Your task to perform on an android device: Open Youtube and go to "Your channel" Image 0: 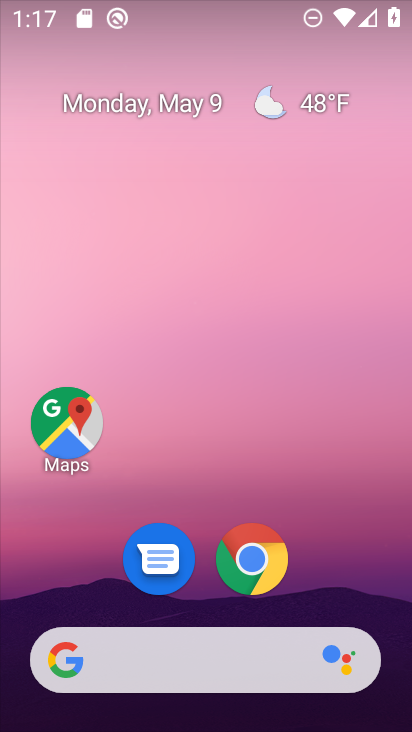
Step 0: click (255, 321)
Your task to perform on an android device: Open Youtube and go to "Your channel" Image 1: 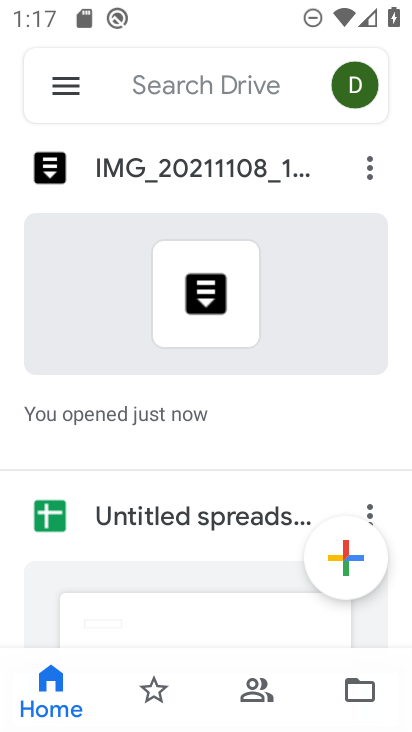
Step 1: drag from (254, 611) to (311, 232)
Your task to perform on an android device: Open Youtube and go to "Your channel" Image 2: 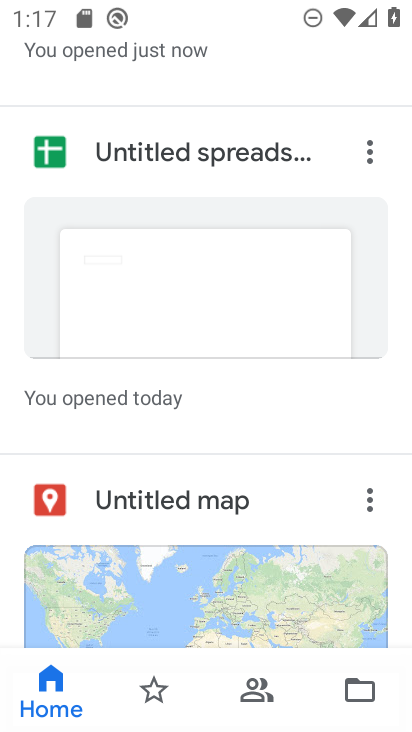
Step 2: drag from (192, 599) to (212, 303)
Your task to perform on an android device: Open Youtube and go to "Your channel" Image 3: 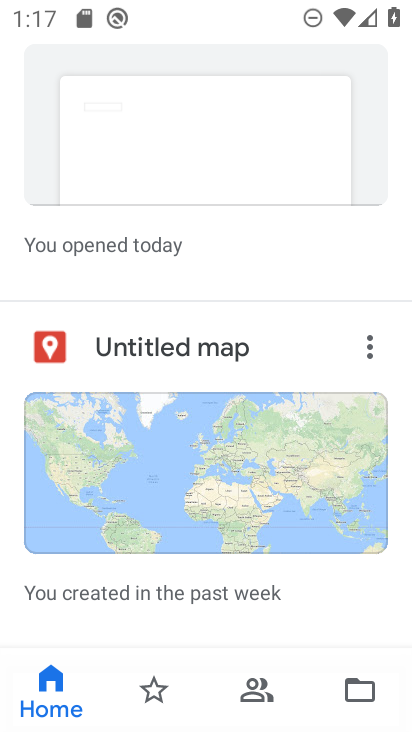
Step 3: drag from (255, 304) to (303, 696)
Your task to perform on an android device: Open Youtube and go to "Your channel" Image 4: 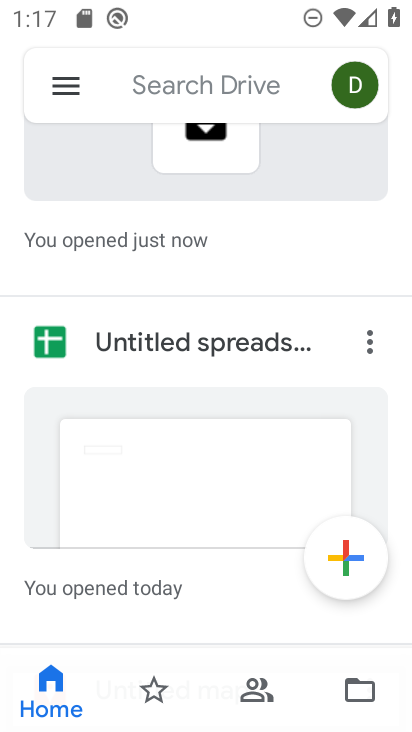
Step 4: press home button
Your task to perform on an android device: Open Youtube and go to "Your channel" Image 5: 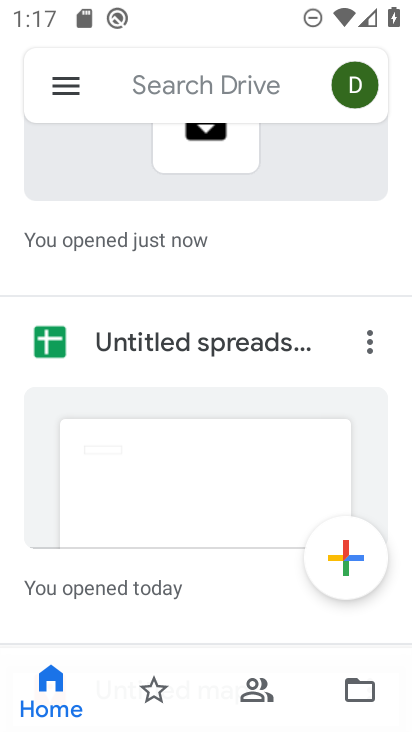
Step 5: press home button
Your task to perform on an android device: Open Youtube and go to "Your channel" Image 6: 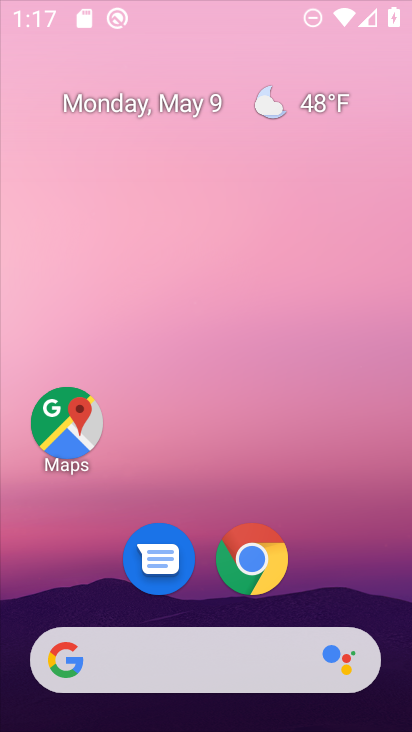
Step 6: press home button
Your task to perform on an android device: Open Youtube and go to "Your channel" Image 7: 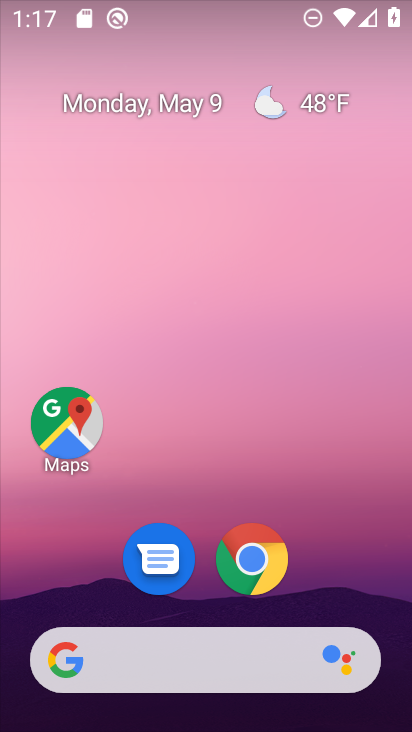
Step 7: drag from (212, 603) to (260, 251)
Your task to perform on an android device: Open Youtube and go to "Your channel" Image 8: 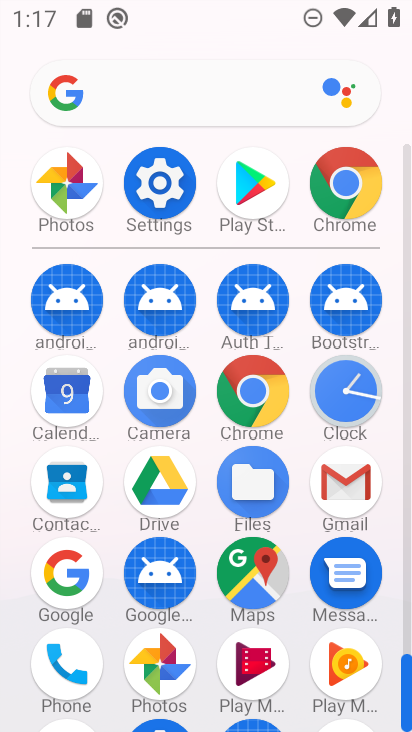
Step 8: drag from (203, 645) to (190, 260)
Your task to perform on an android device: Open Youtube and go to "Your channel" Image 9: 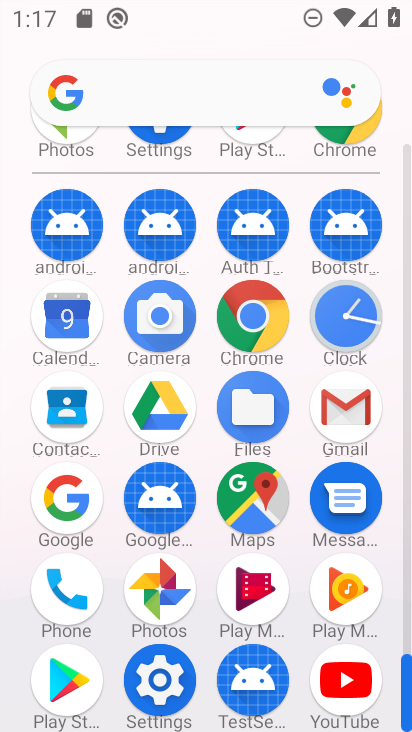
Step 9: click (363, 659)
Your task to perform on an android device: Open Youtube and go to "Your channel" Image 10: 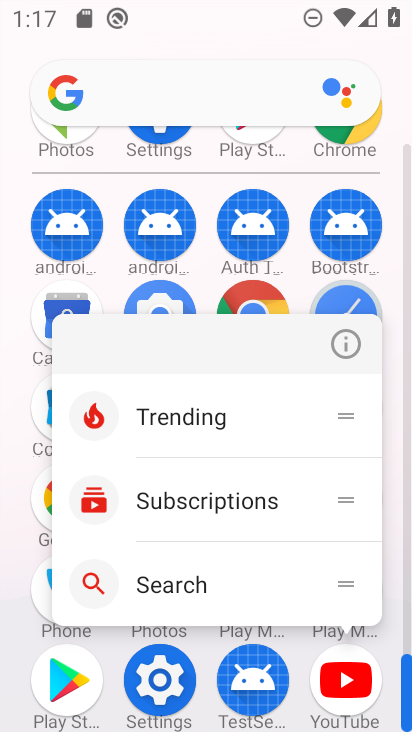
Step 10: click (345, 334)
Your task to perform on an android device: Open Youtube and go to "Your channel" Image 11: 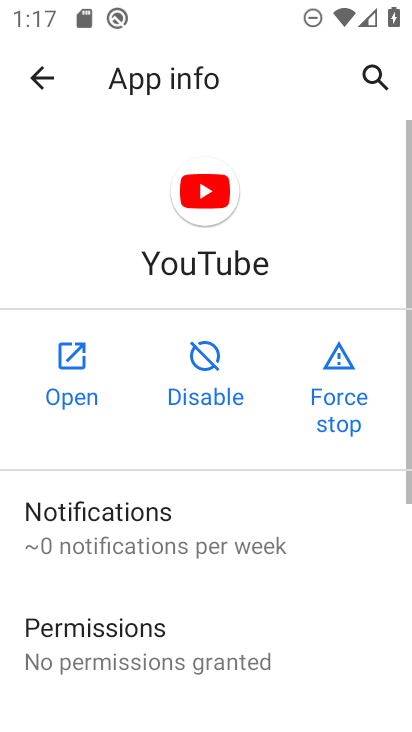
Step 11: click (73, 381)
Your task to perform on an android device: Open Youtube and go to "Your channel" Image 12: 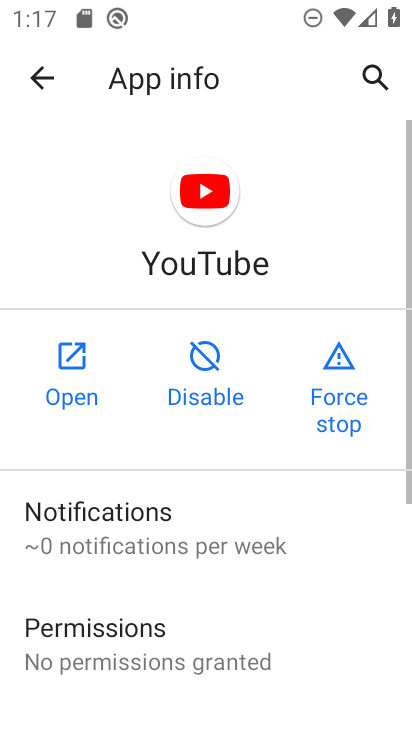
Step 12: click (73, 381)
Your task to perform on an android device: Open Youtube and go to "Your channel" Image 13: 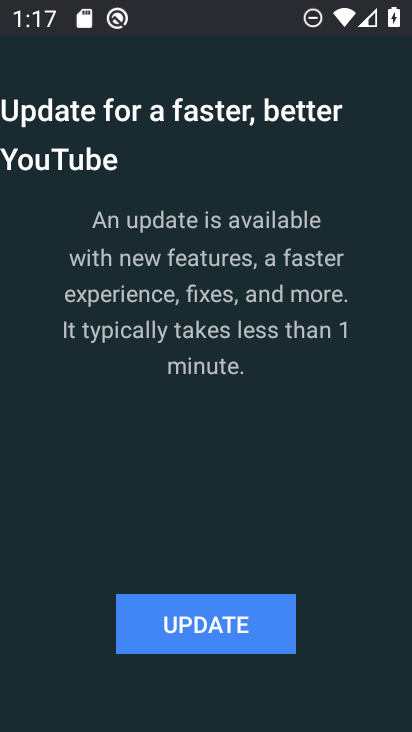
Step 13: press home button
Your task to perform on an android device: Open Youtube and go to "Your channel" Image 14: 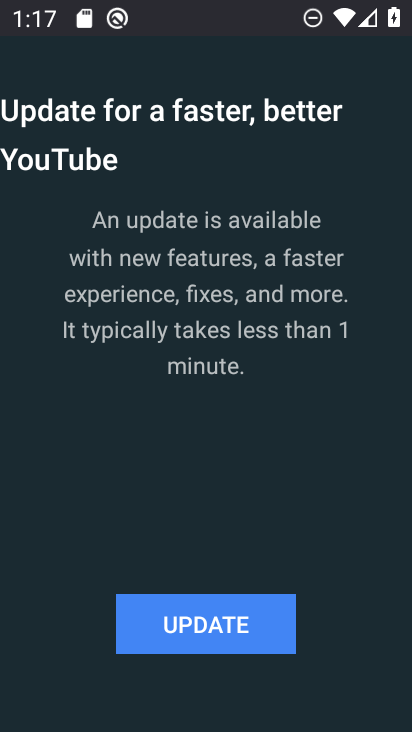
Step 14: press home button
Your task to perform on an android device: Open Youtube and go to "Your channel" Image 15: 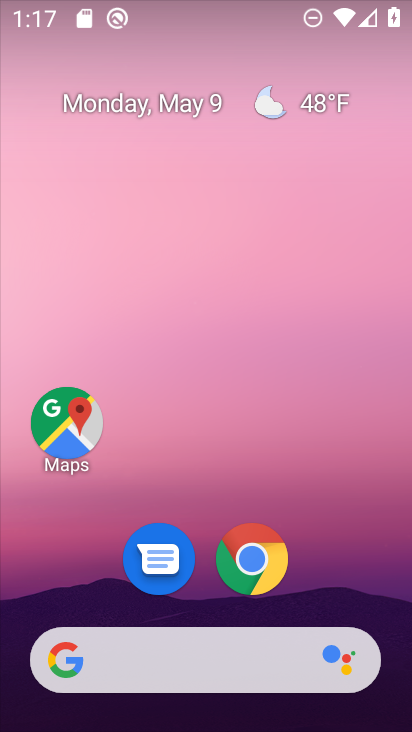
Step 15: press home button
Your task to perform on an android device: Open Youtube and go to "Your channel" Image 16: 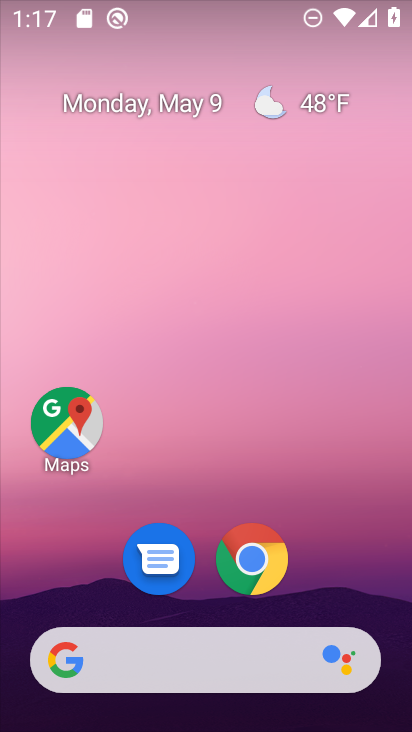
Step 16: press home button
Your task to perform on an android device: Open Youtube and go to "Your channel" Image 17: 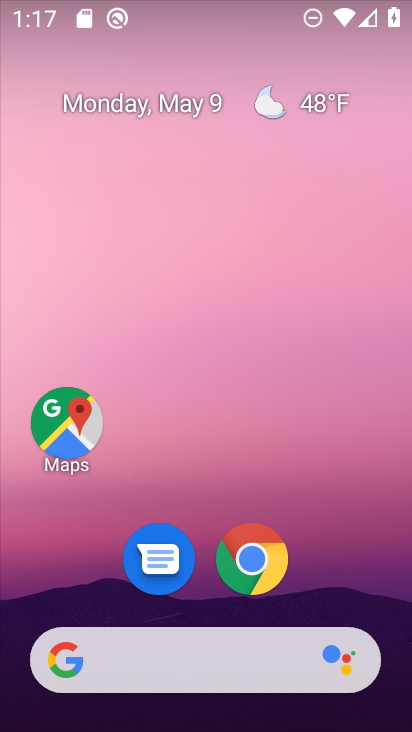
Step 17: press home button
Your task to perform on an android device: Open Youtube and go to "Your channel" Image 18: 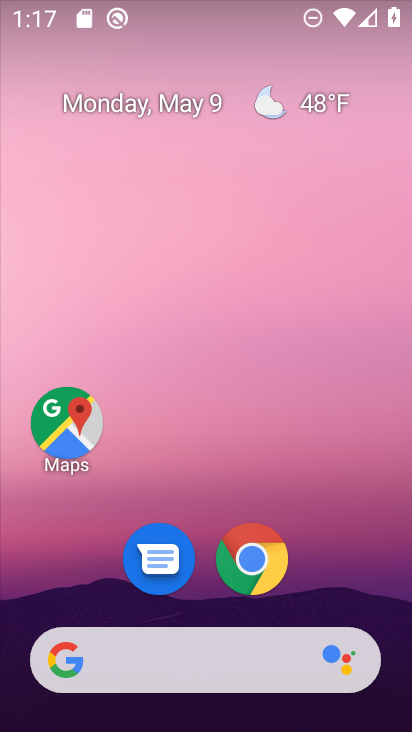
Step 18: drag from (196, 620) to (261, 125)
Your task to perform on an android device: Open Youtube and go to "Your channel" Image 19: 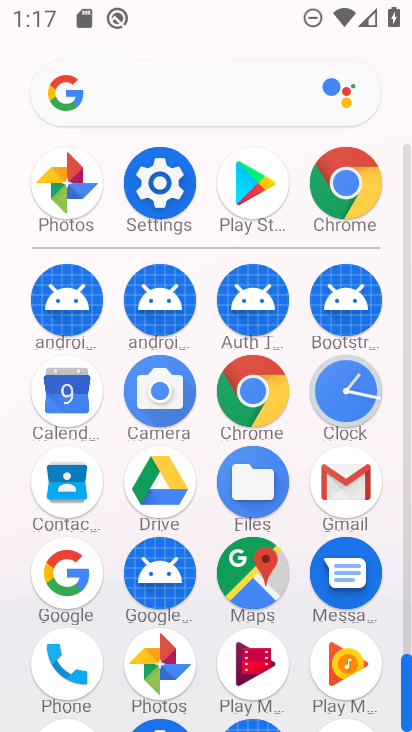
Step 19: drag from (200, 707) to (210, 244)
Your task to perform on an android device: Open Youtube and go to "Your channel" Image 20: 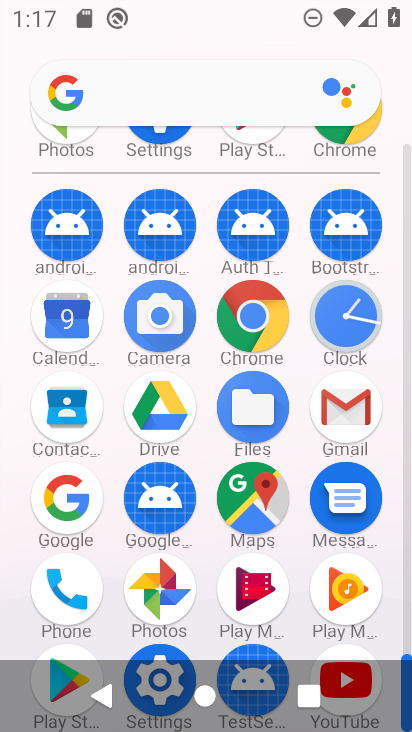
Step 20: drag from (196, 633) to (218, 189)
Your task to perform on an android device: Open Youtube and go to "Your channel" Image 21: 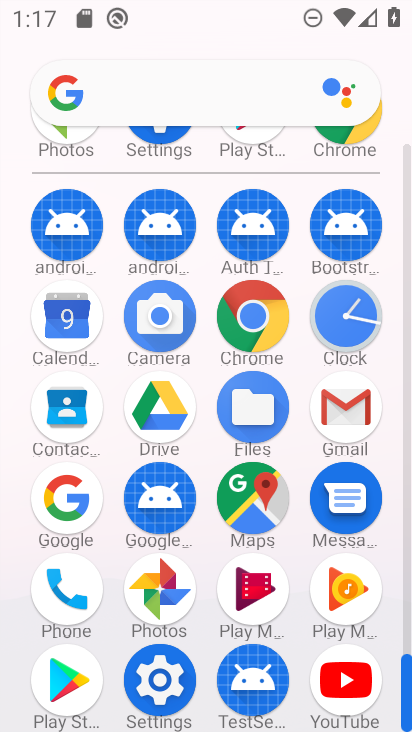
Step 21: click (350, 681)
Your task to perform on an android device: Open Youtube and go to "Your channel" Image 22: 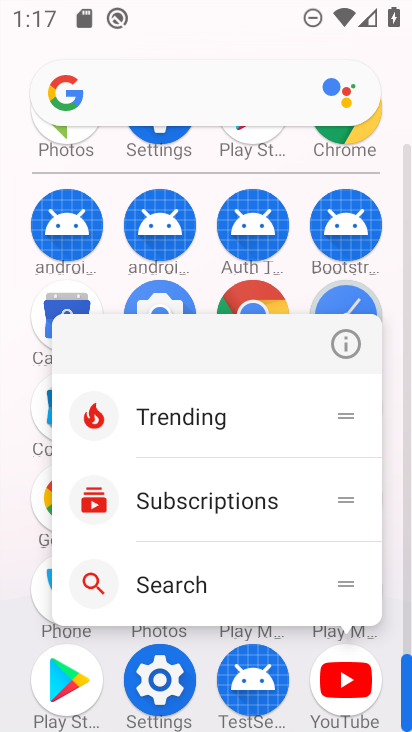
Step 22: task complete